Your task to perform on an android device: allow cookies in the chrome app Image 0: 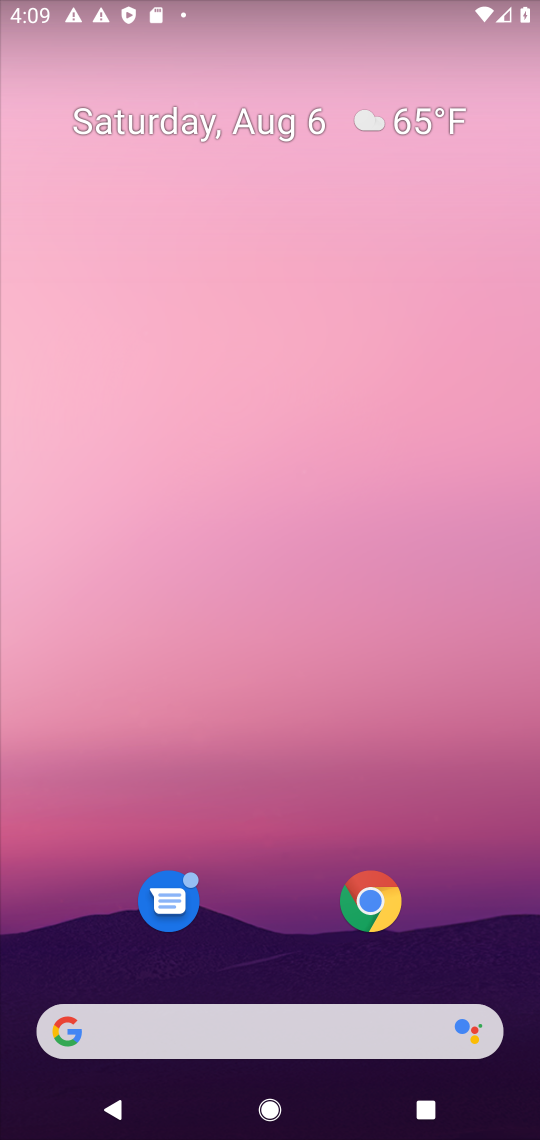
Step 0: press home button
Your task to perform on an android device: allow cookies in the chrome app Image 1: 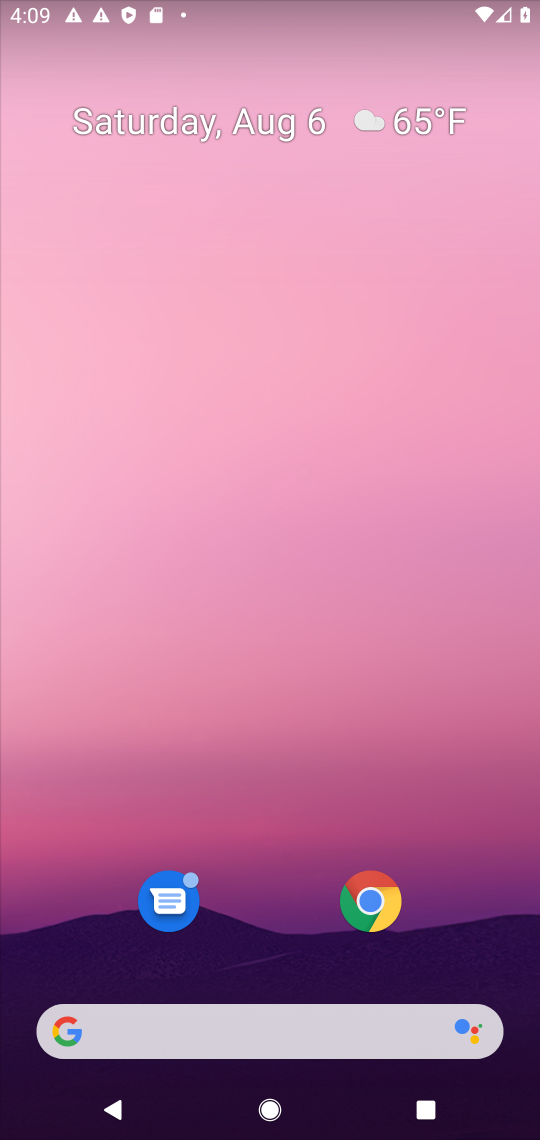
Step 1: click (367, 916)
Your task to perform on an android device: allow cookies in the chrome app Image 2: 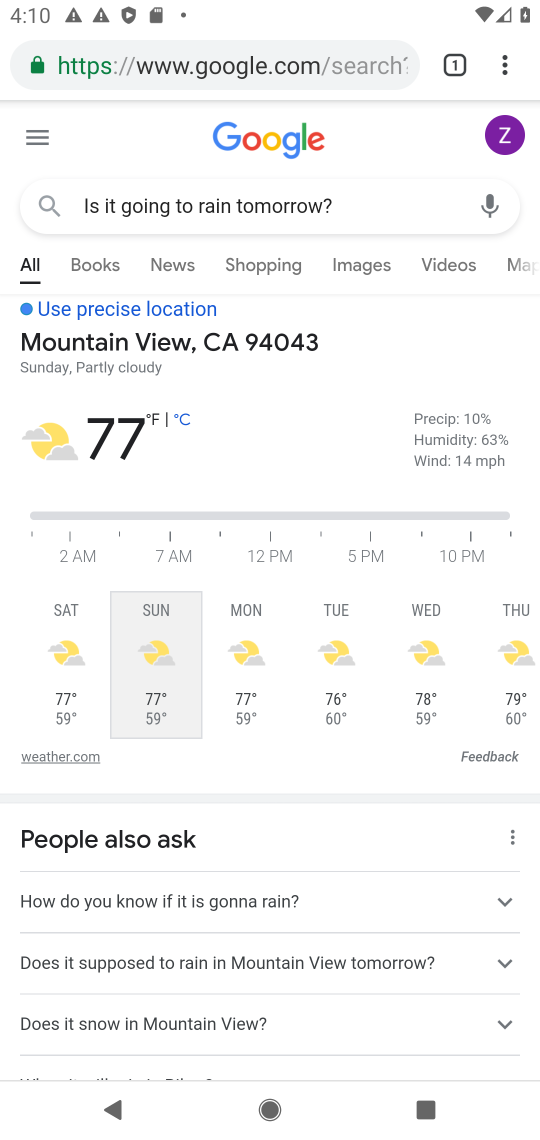
Step 2: task complete